Your task to perform on an android device: Open Youtube and go to "Your channel" Image 0: 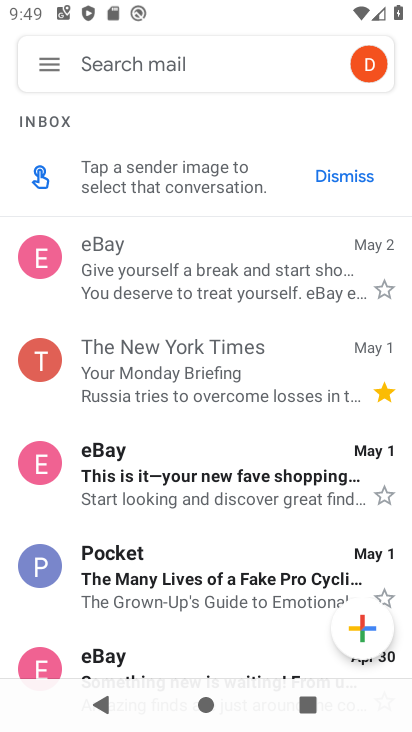
Step 0: press home button
Your task to perform on an android device: Open Youtube and go to "Your channel" Image 1: 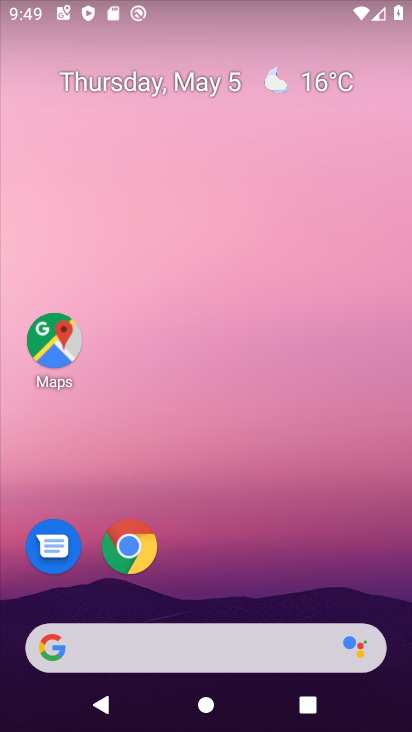
Step 1: drag from (211, 585) to (218, 60)
Your task to perform on an android device: Open Youtube and go to "Your channel" Image 2: 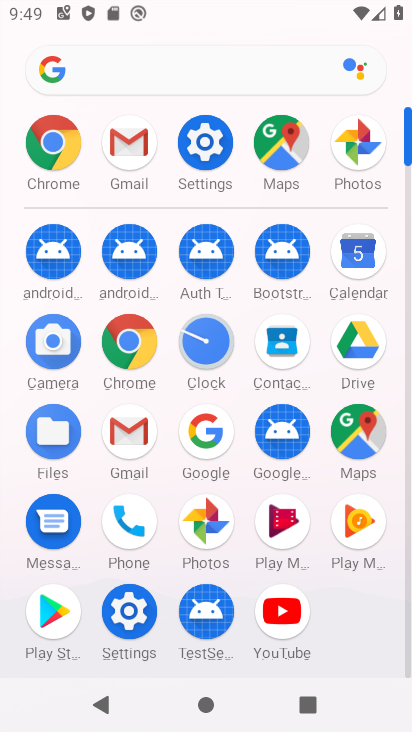
Step 2: click (286, 611)
Your task to perform on an android device: Open Youtube and go to "Your channel" Image 3: 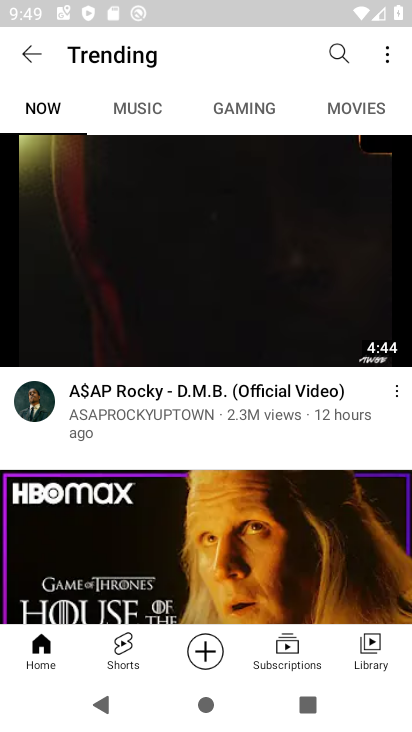
Step 3: click (371, 657)
Your task to perform on an android device: Open Youtube and go to "Your channel" Image 4: 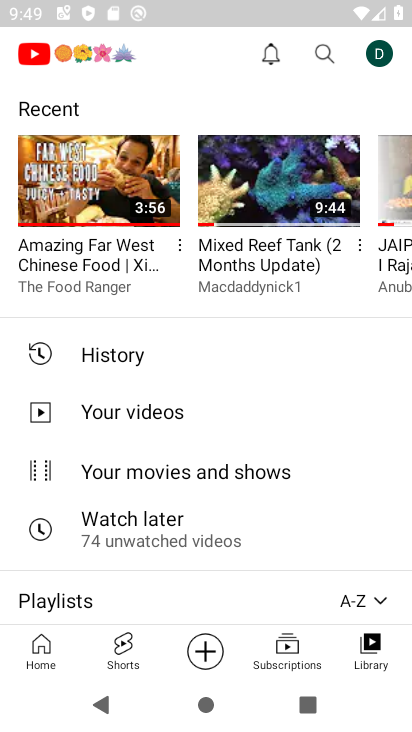
Step 4: click (382, 49)
Your task to perform on an android device: Open Youtube and go to "Your channel" Image 5: 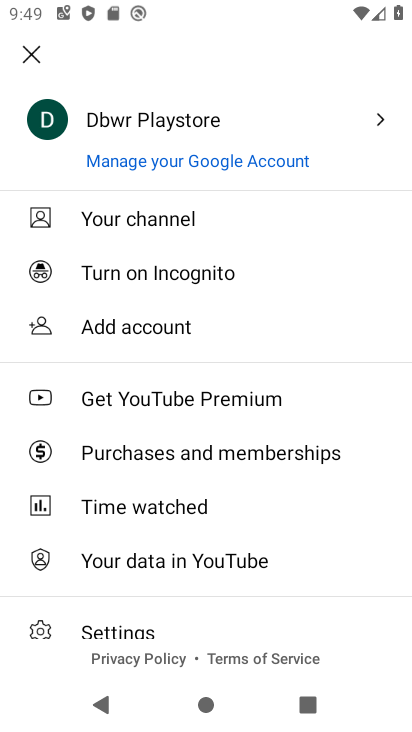
Step 5: click (105, 215)
Your task to perform on an android device: Open Youtube and go to "Your channel" Image 6: 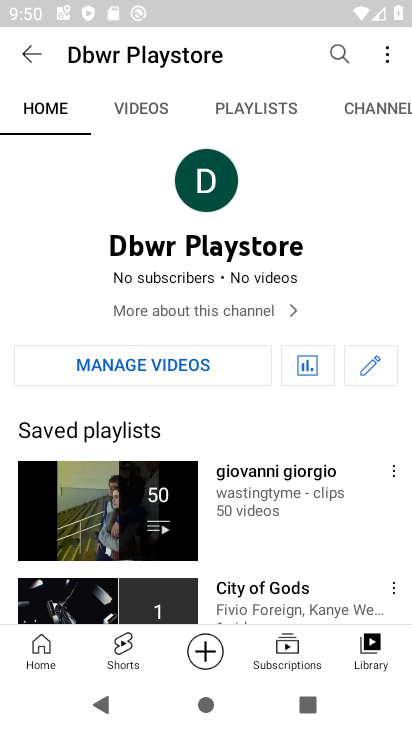
Step 6: task complete